Your task to perform on an android device: turn on airplane mode Image 0: 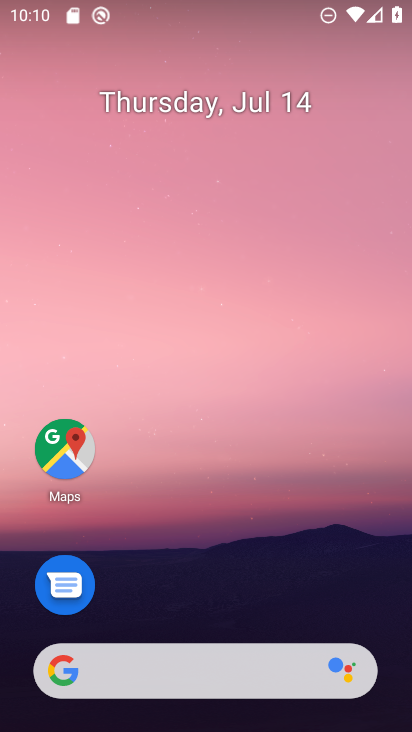
Step 0: drag from (231, 629) to (196, 1)
Your task to perform on an android device: turn on airplane mode Image 1: 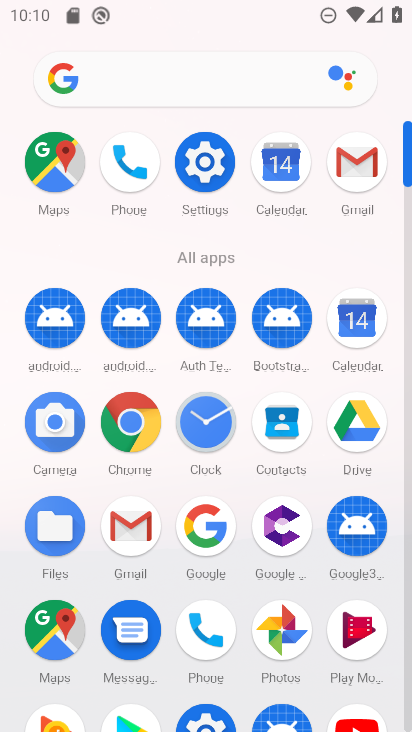
Step 1: click (210, 182)
Your task to perform on an android device: turn on airplane mode Image 2: 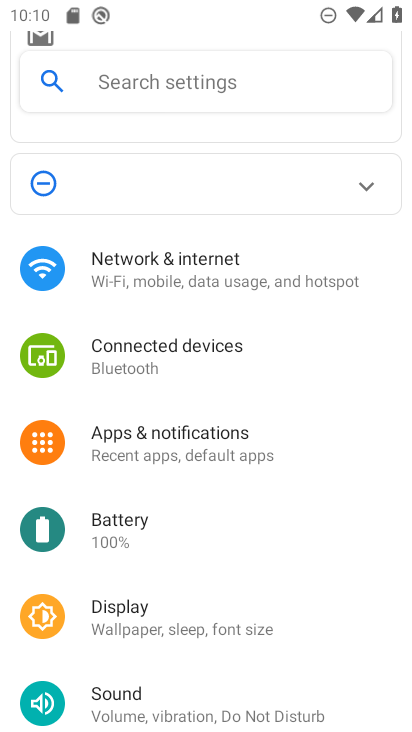
Step 2: click (189, 247)
Your task to perform on an android device: turn on airplane mode Image 3: 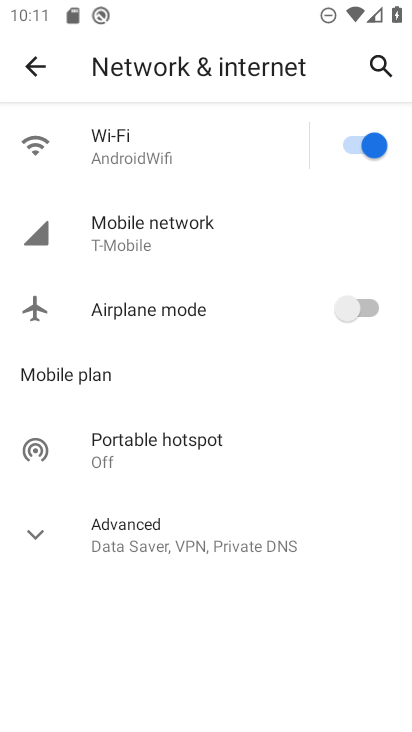
Step 3: click (346, 299)
Your task to perform on an android device: turn on airplane mode Image 4: 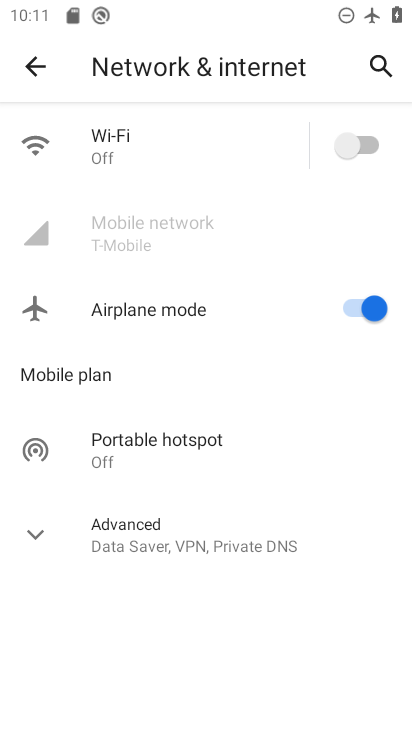
Step 4: task complete